Your task to perform on an android device: Open Youtube and go to the subscriptions tab Image 0: 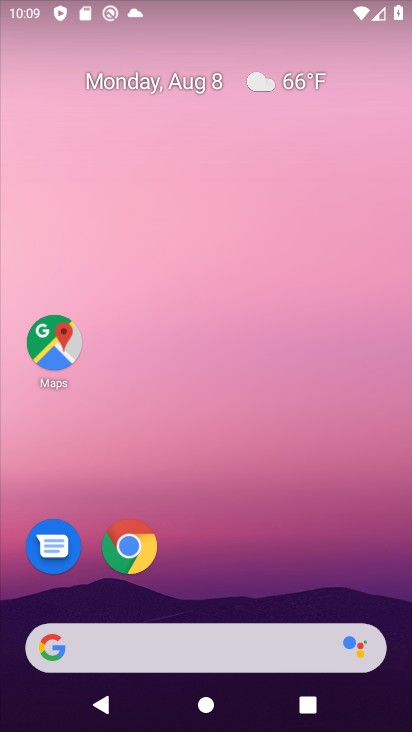
Step 0: drag from (293, 578) to (266, 93)
Your task to perform on an android device: Open Youtube and go to the subscriptions tab Image 1: 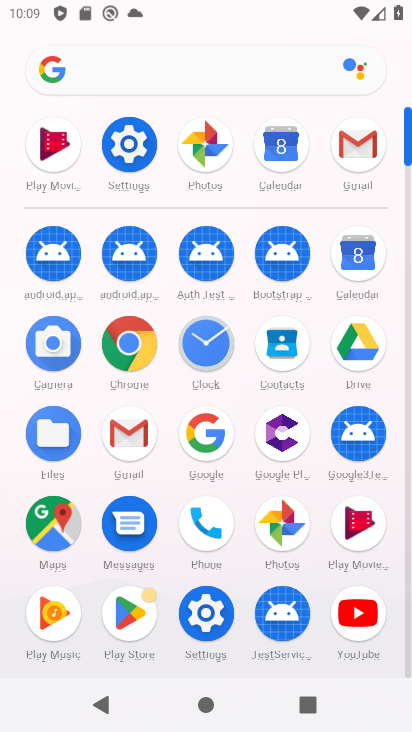
Step 1: click (340, 603)
Your task to perform on an android device: Open Youtube and go to the subscriptions tab Image 2: 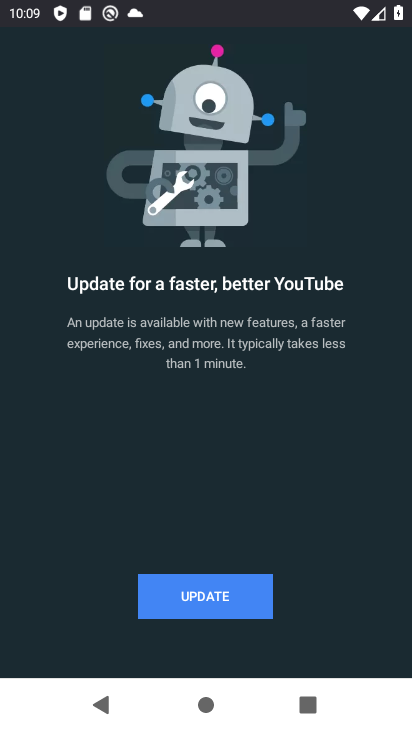
Step 2: task complete